Your task to perform on an android device: set default search engine in the chrome app Image 0: 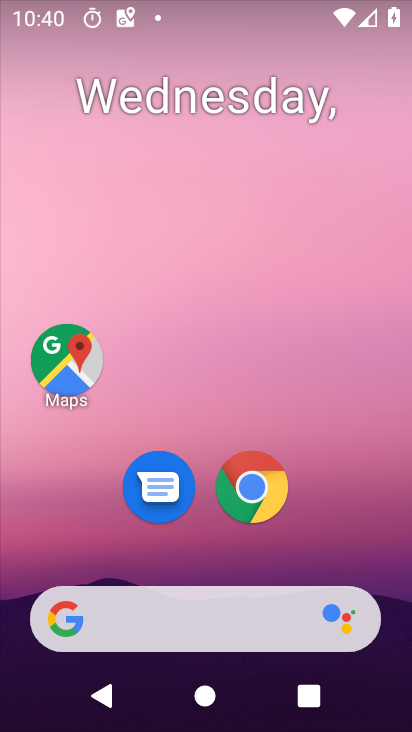
Step 0: drag from (312, 640) to (276, 11)
Your task to perform on an android device: set default search engine in the chrome app Image 1: 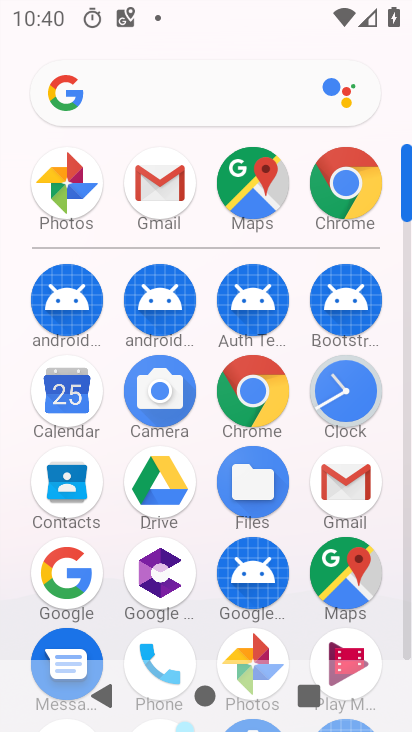
Step 1: click (269, 409)
Your task to perform on an android device: set default search engine in the chrome app Image 2: 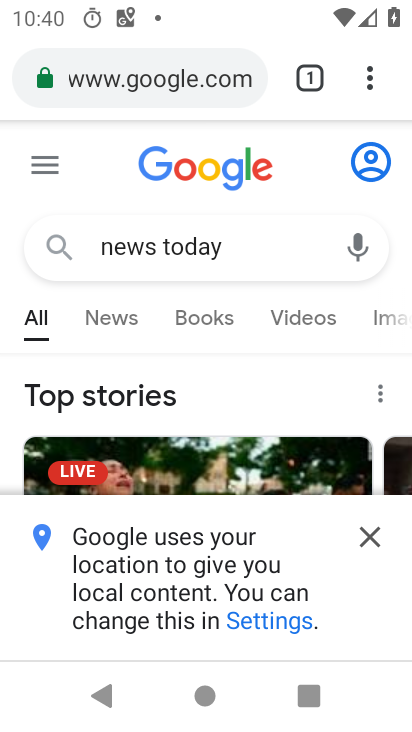
Step 2: click (370, 78)
Your task to perform on an android device: set default search engine in the chrome app Image 3: 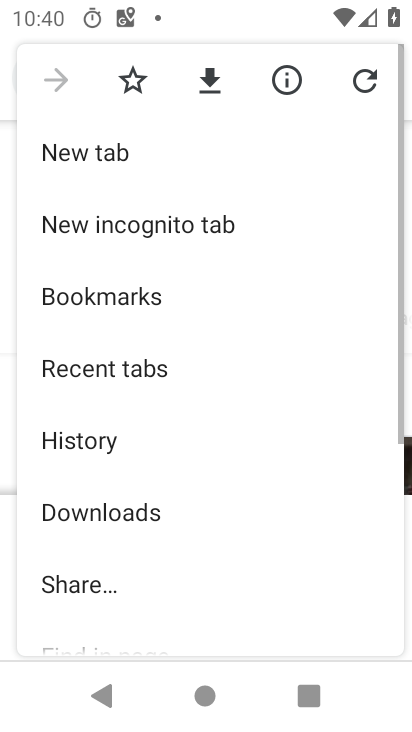
Step 3: drag from (209, 518) to (272, 20)
Your task to perform on an android device: set default search engine in the chrome app Image 4: 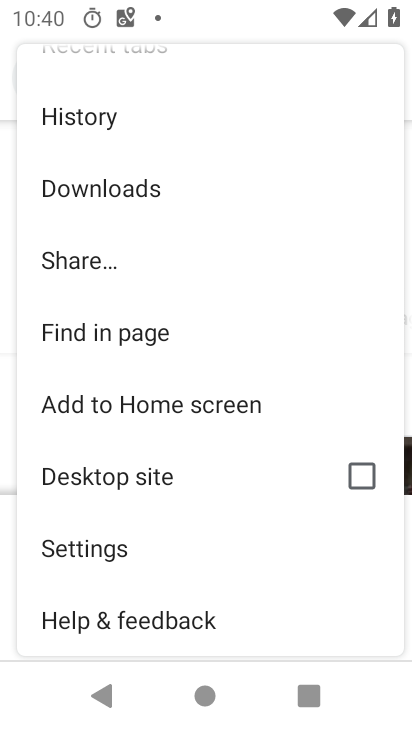
Step 4: click (134, 557)
Your task to perform on an android device: set default search engine in the chrome app Image 5: 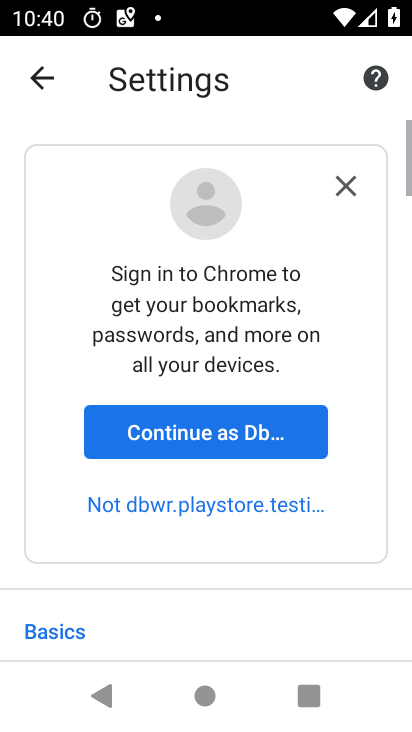
Step 5: drag from (189, 535) to (255, 74)
Your task to perform on an android device: set default search engine in the chrome app Image 6: 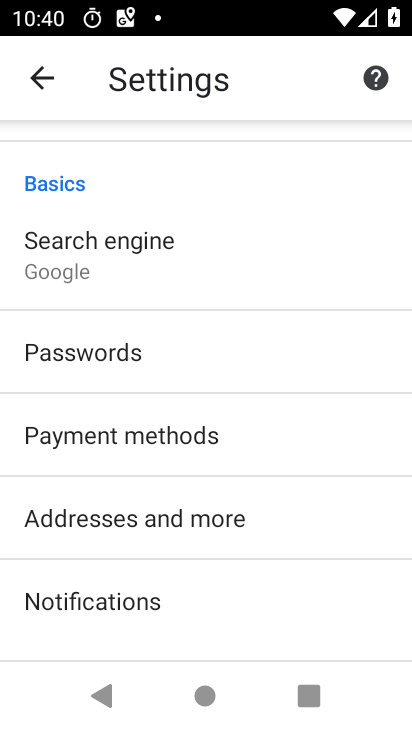
Step 6: click (273, 303)
Your task to perform on an android device: set default search engine in the chrome app Image 7: 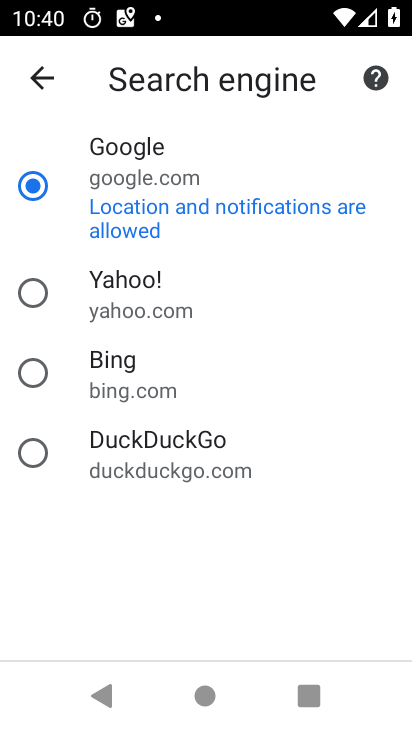
Step 7: task complete